Your task to perform on an android device: Find the nearest electronics store that's open today Image 0: 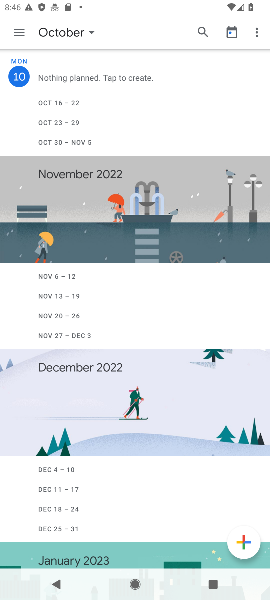
Step 0: press home button
Your task to perform on an android device: Find the nearest electronics store that's open today Image 1: 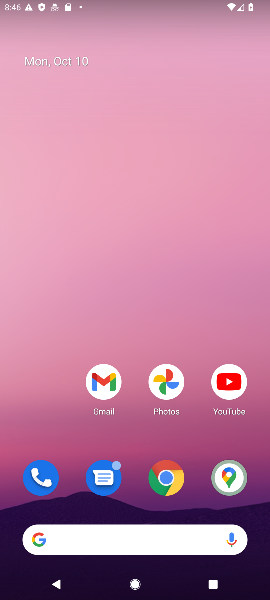
Step 1: drag from (132, 500) to (82, 211)
Your task to perform on an android device: Find the nearest electronics store that's open today Image 2: 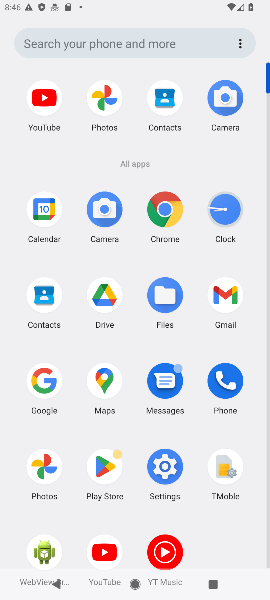
Step 2: click (103, 387)
Your task to perform on an android device: Find the nearest electronics store that's open today Image 3: 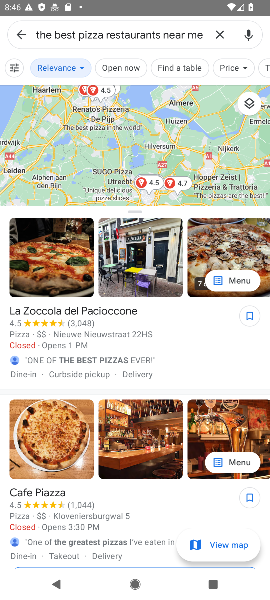
Step 3: click (214, 35)
Your task to perform on an android device: Find the nearest electronics store that's open today Image 4: 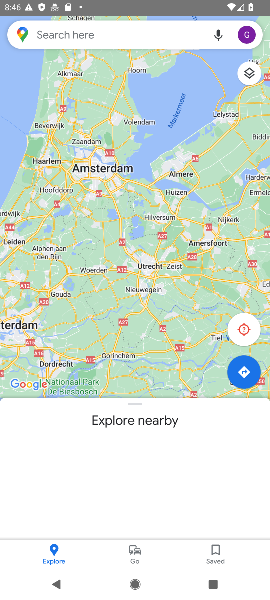
Step 4: click (112, 40)
Your task to perform on an android device: Find the nearest electronics store that's open today Image 5: 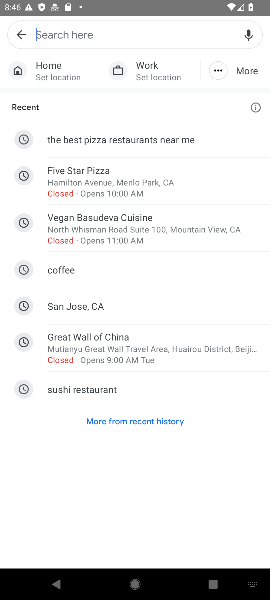
Step 5: type "nearest electronics store that's open today"
Your task to perform on an android device: Find the nearest electronics store that's open today Image 6: 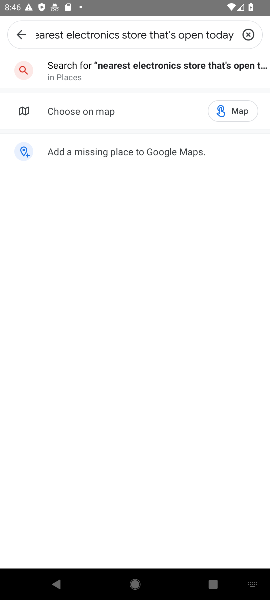
Step 6: click (211, 65)
Your task to perform on an android device: Find the nearest electronics store that's open today Image 7: 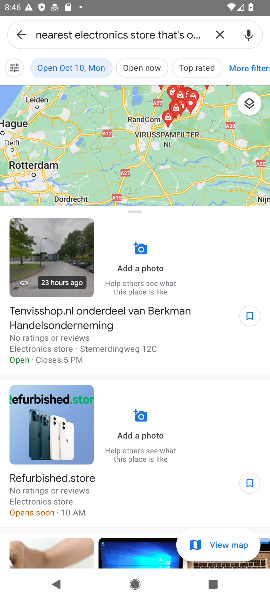
Step 7: task complete